Your task to perform on an android device: toggle improve location accuracy Image 0: 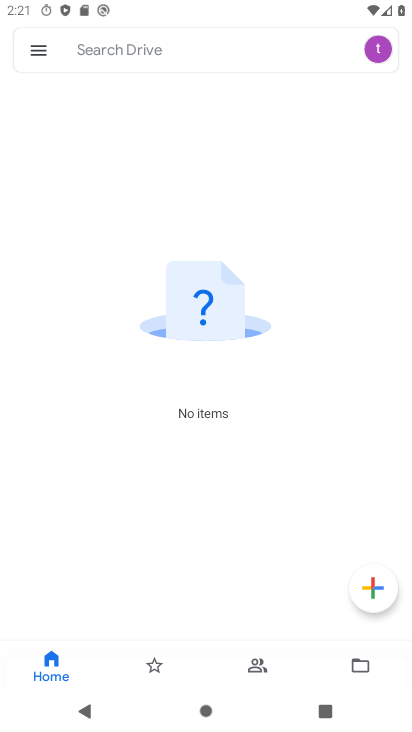
Step 0: press home button
Your task to perform on an android device: toggle improve location accuracy Image 1: 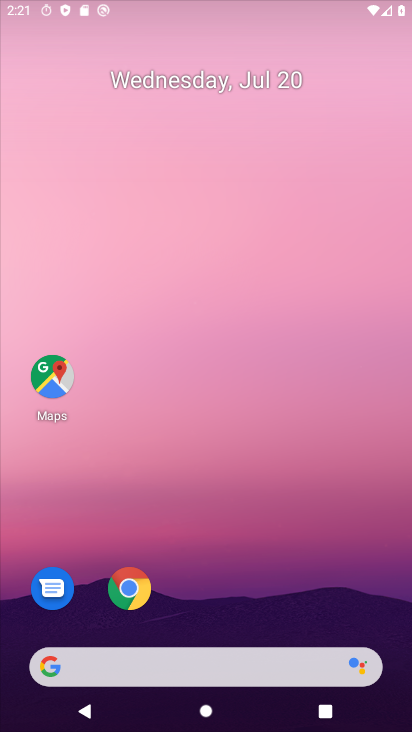
Step 1: drag from (193, 507) to (311, 71)
Your task to perform on an android device: toggle improve location accuracy Image 2: 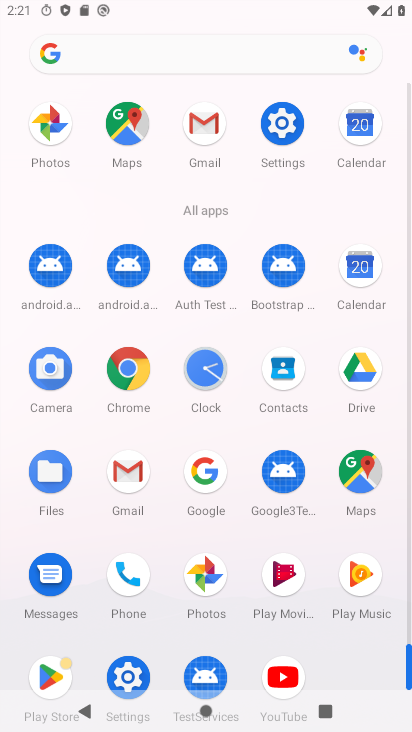
Step 2: click (282, 118)
Your task to perform on an android device: toggle improve location accuracy Image 3: 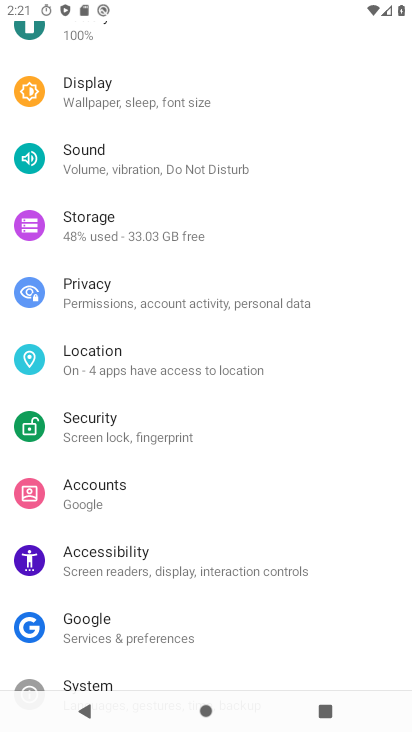
Step 3: click (134, 360)
Your task to perform on an android device: toggle improve location accuracy Image 4: 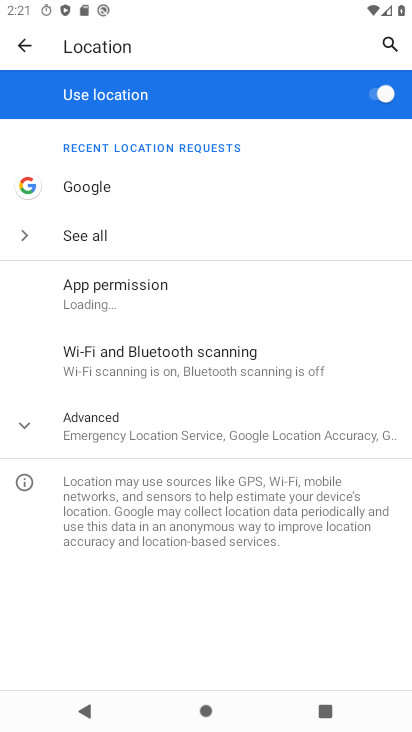
Step 4: click (112, 427)
Your task to perform on an android device: toggle improve location accuracy Image 5: 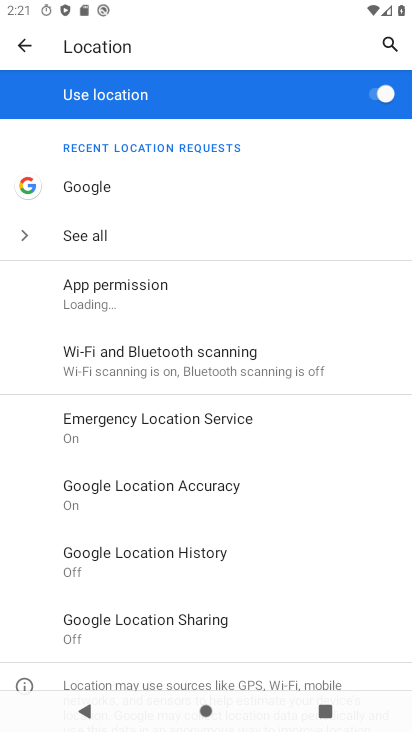
Step 5: click (206, 483)
Your task to perform on an android device: toggle improve location accuracy Image 6: 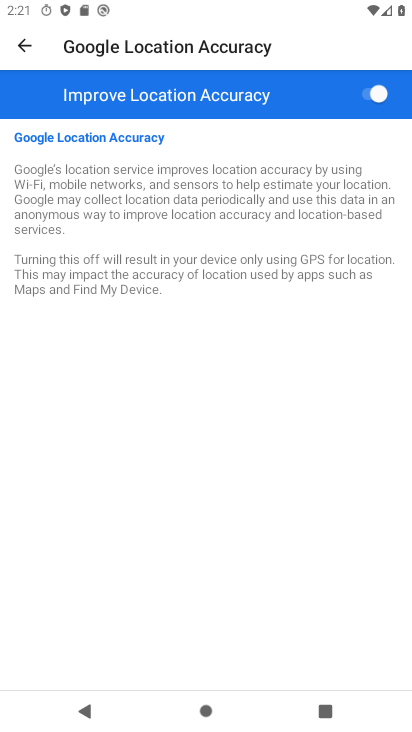
Step 6: click (376, 91)
Your task to perform on an android device: toggle improve location accuracy Image 7: 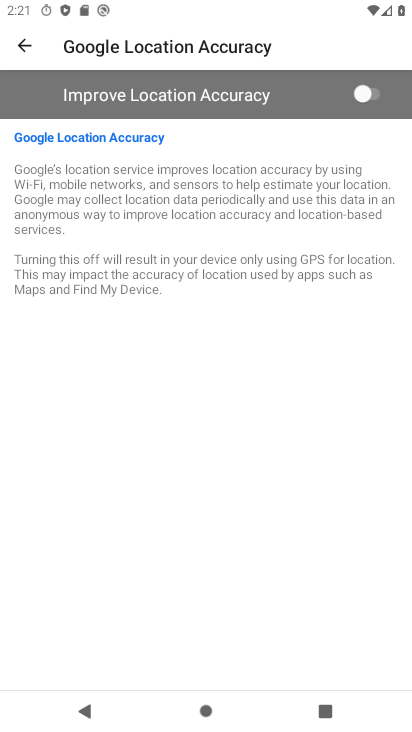
Step 7: task complete